Your task to perform on an android device: toggle wifi Image 0: 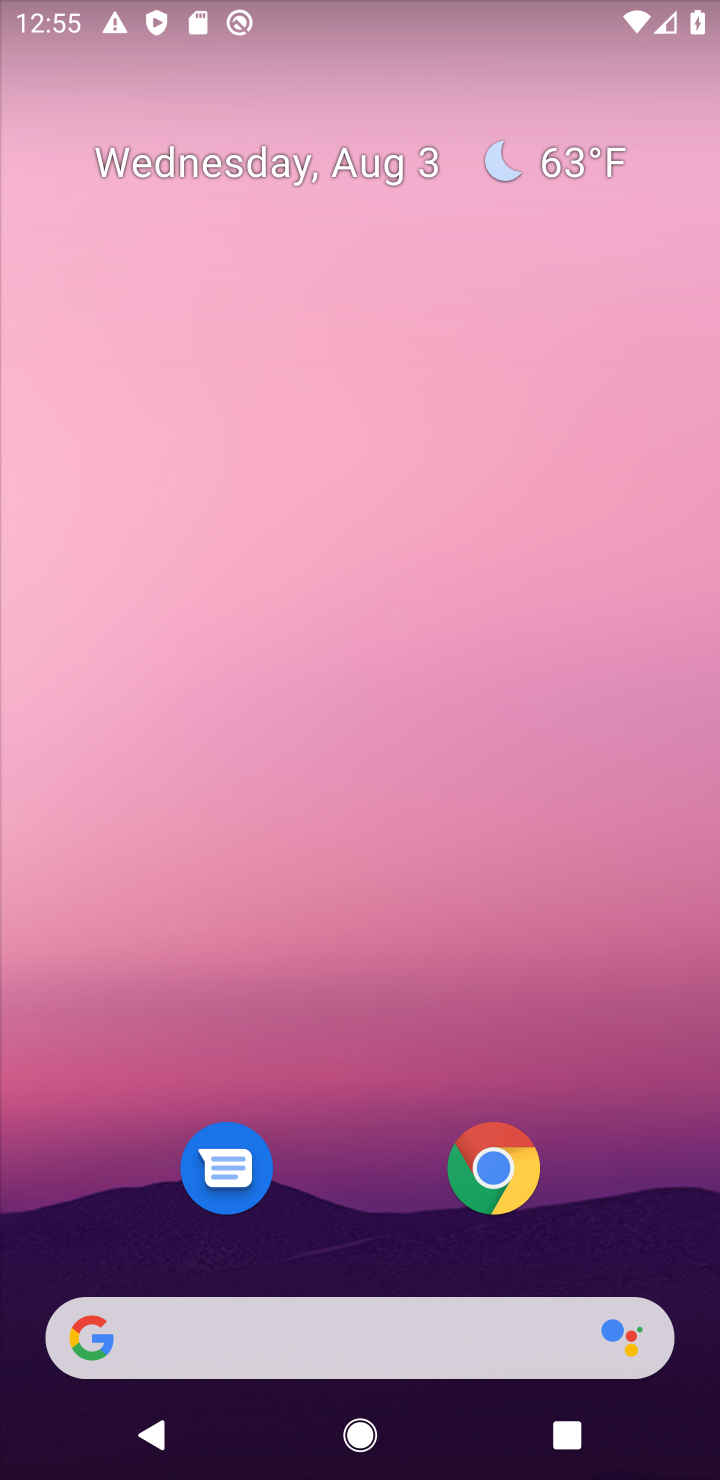
Step 0: press home button
Your task to perform on an android device: toggle wifi Image 1: 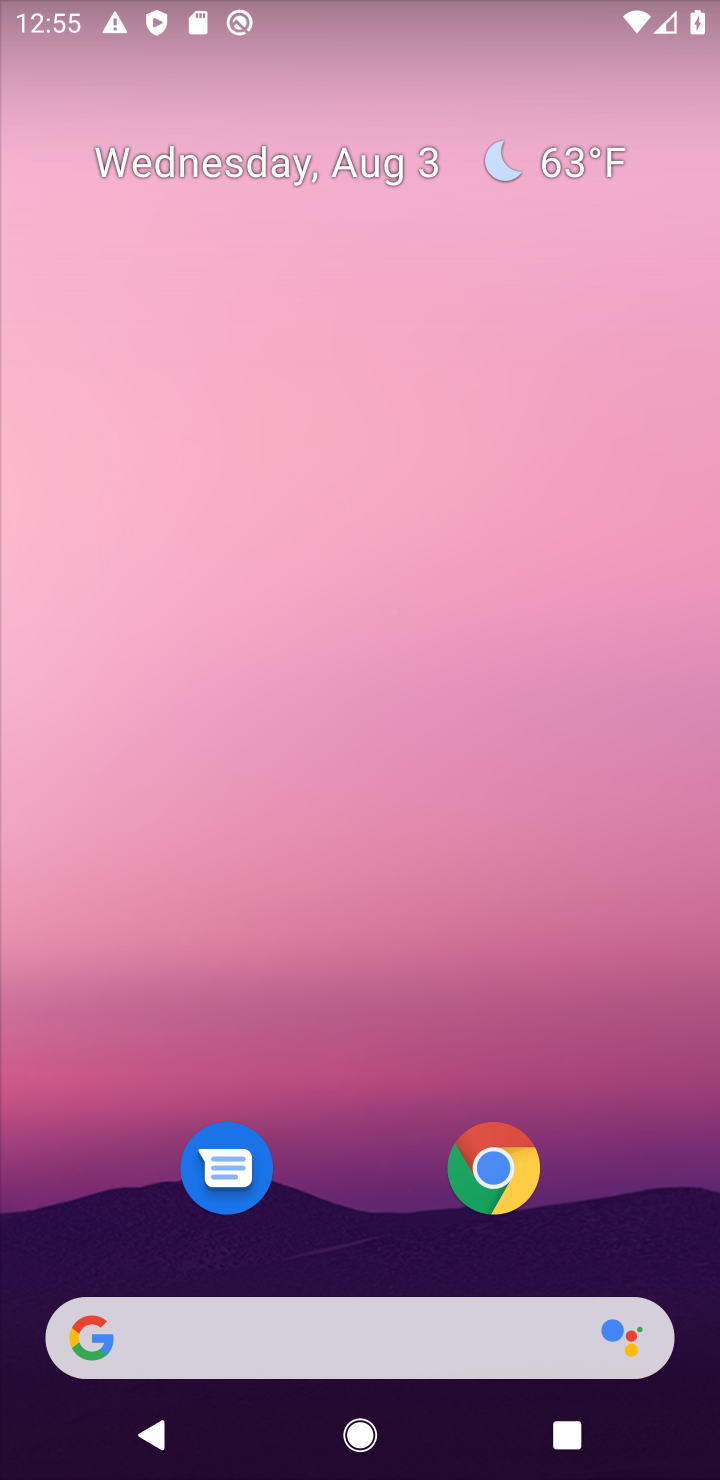
Step 1: drag from (567, 19) to (509, 834)
Your task to perform on an android device: toggle wifi Image 2: 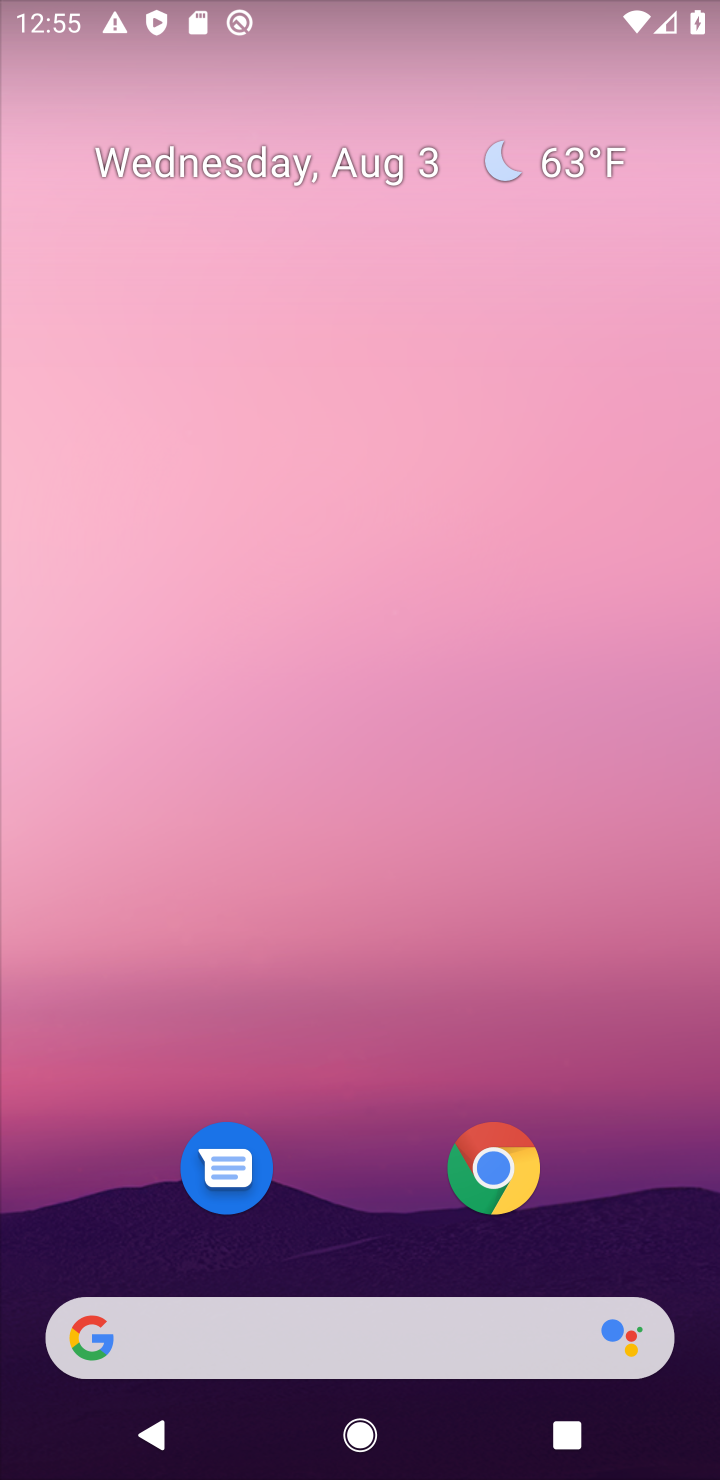
Step 2: drag from (457, 30) to (334, 1428)
Your task to perform on an android device: toggle wifi Image 3: 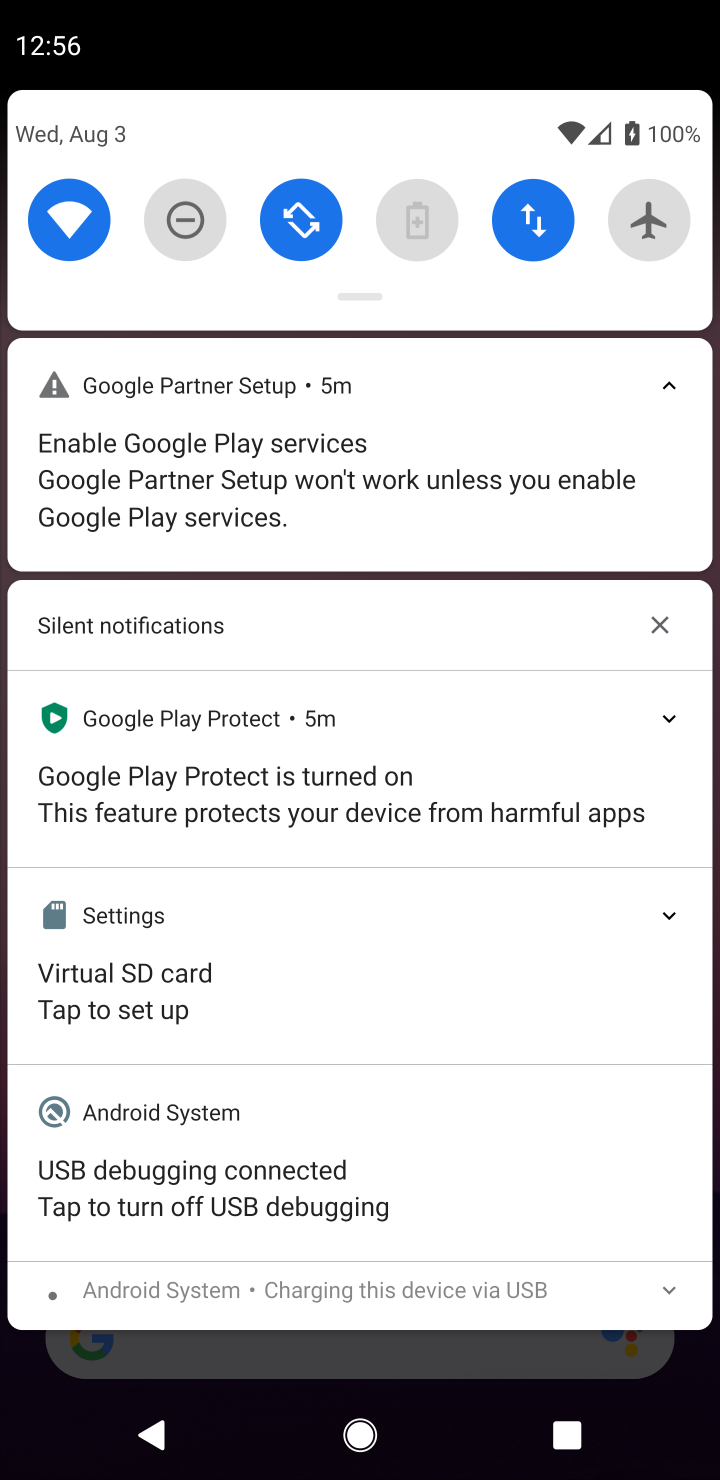
Step 3: click (80, 222)
Your task to perform on an android device: toggle wifi Image 4: 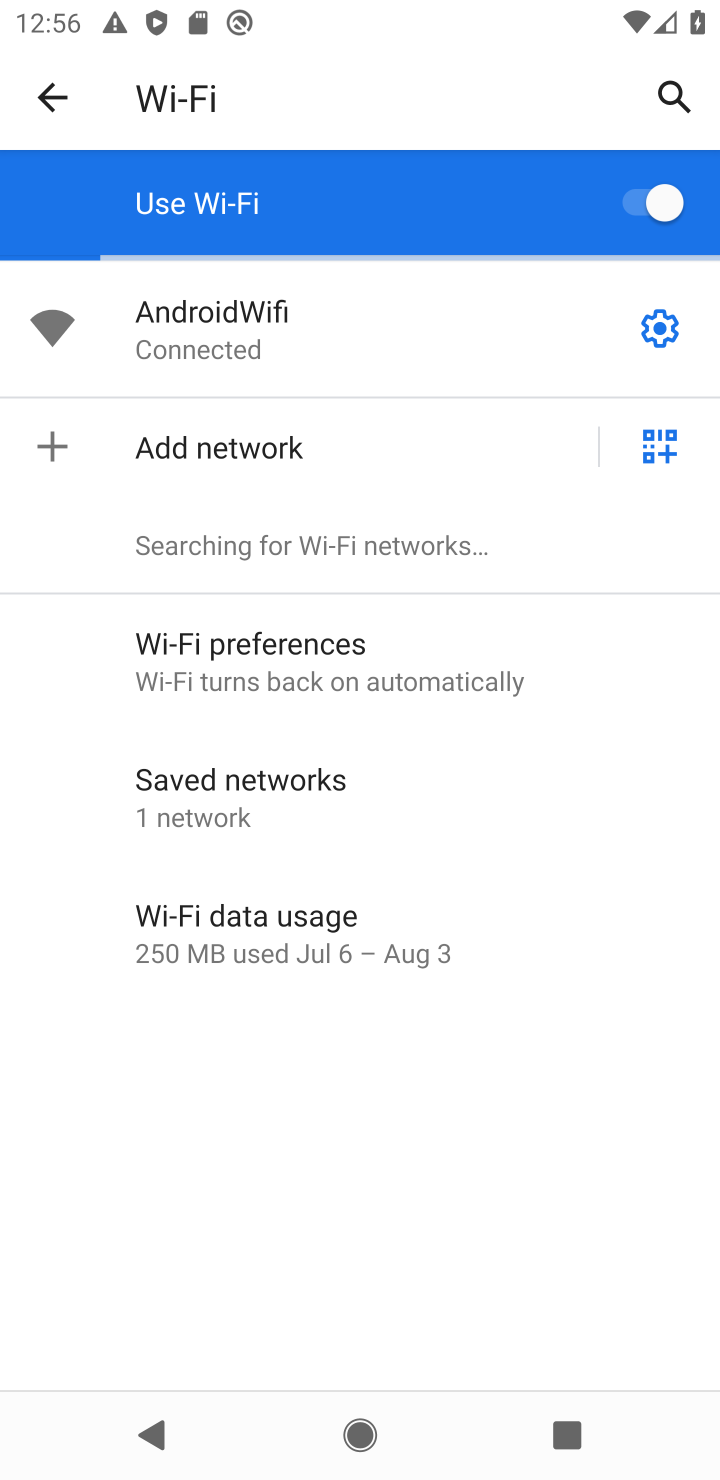
Step 4: click (560, 185)
Your task to perform on an android device: toggle wifi Image 5: 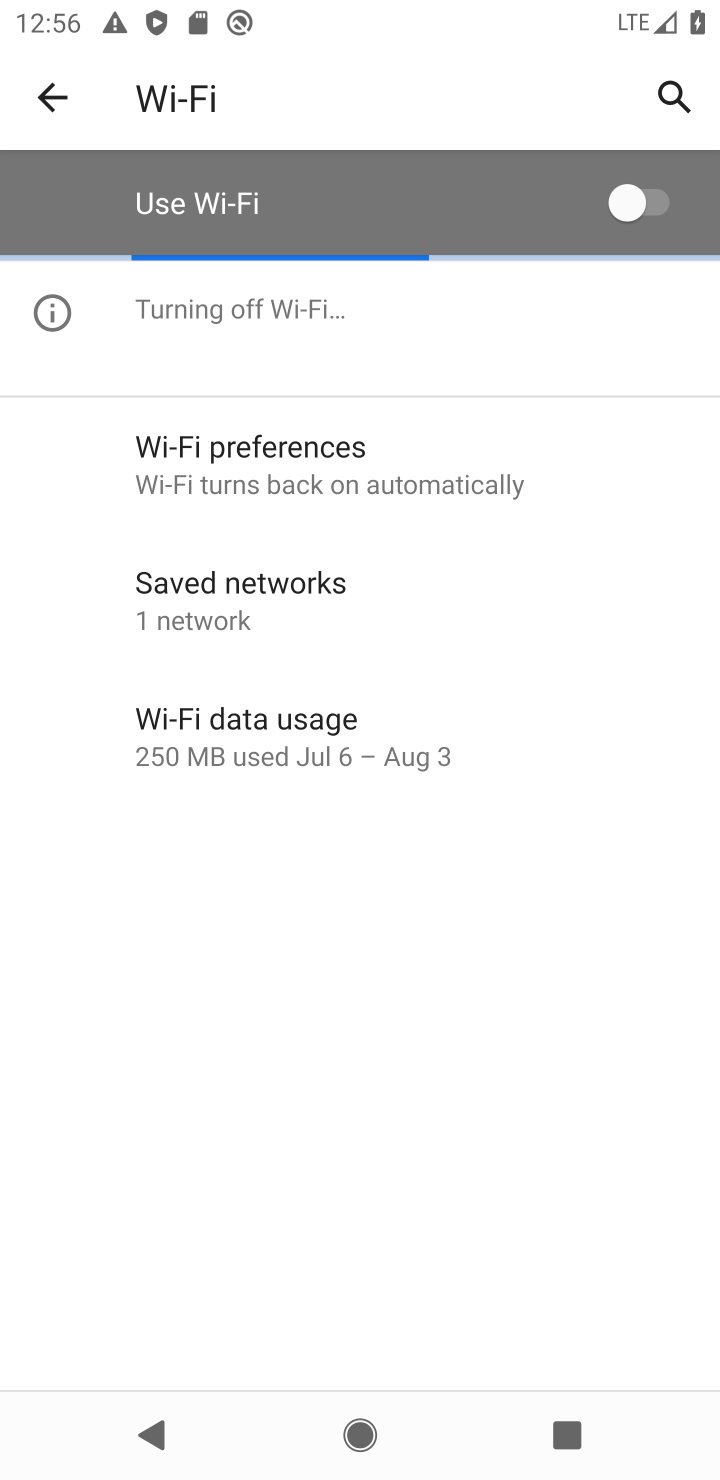
Step 5: task complete